Your task to perform on an android device: Open calendar and show me the first week of next month Image 0: 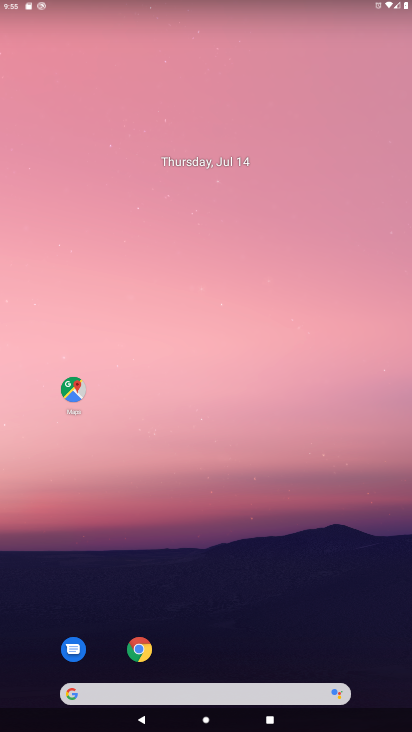
Step 0: drag from (178, 719) to (205, 50)
Your task to perform on an android device: Open calendar and show me the first week of next month Image 1: 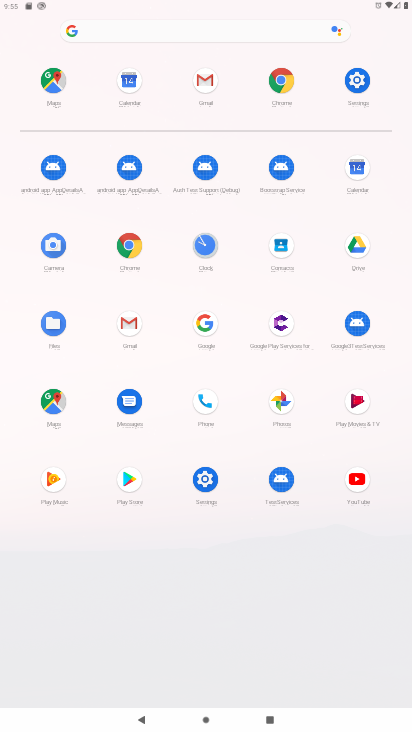
Step 1: click (356, 172)
Your task to perform on an android device: Open calendar and show me the first week of next month Image 2: 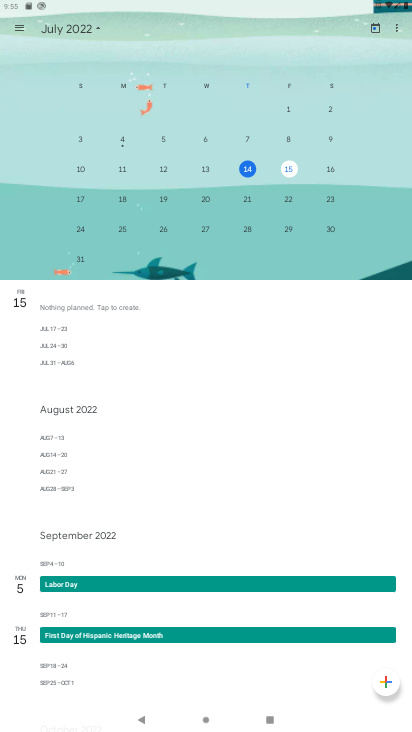
Step 2: drag from (327, 128) to (17, 214)
Your task to perform on an android device: Open calendar and show me the first week of next month Image 3: 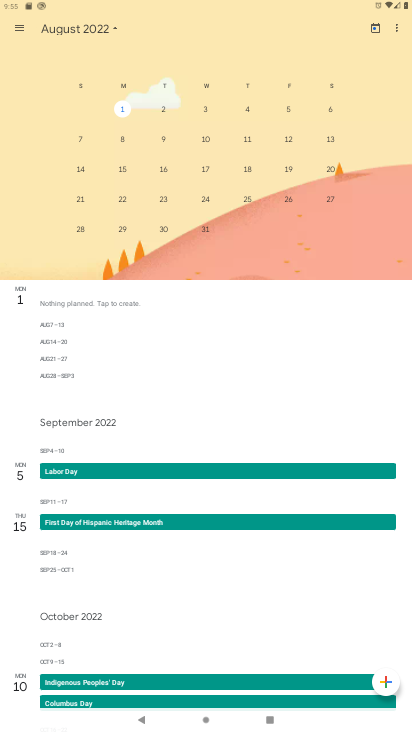
Step 3: click (124, 102)
Your task to perform on an android device: Open calendar and show me the first week of next month Image 4: 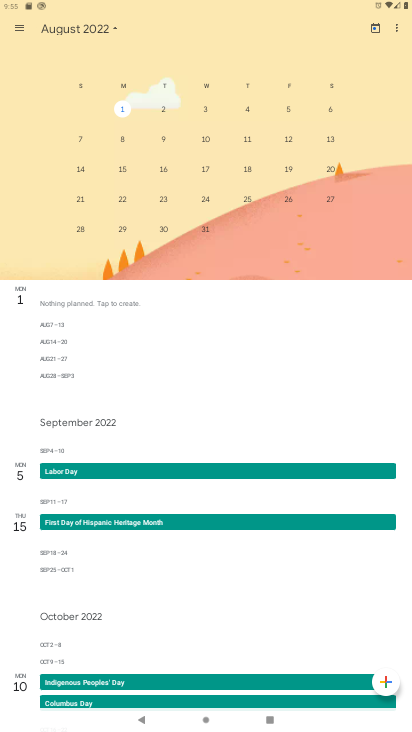
Step 4: task complete